Your task to perform on an android device: check android version Image 0: 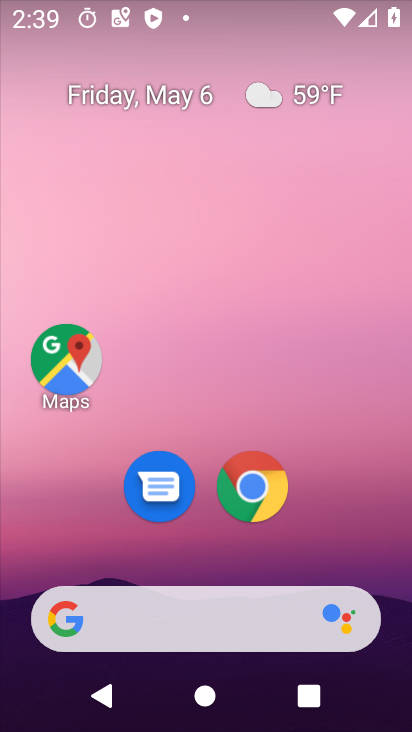
Step 0: drag from (319, 533) to (224, 145)
Your task to perform on an android device: check android version Image 1: 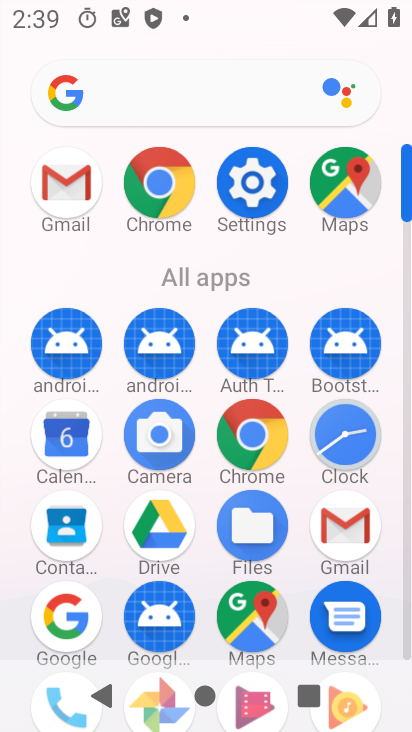
Step 1: click (247, 185)
Your task to perform on an android device: check android version Image 2: 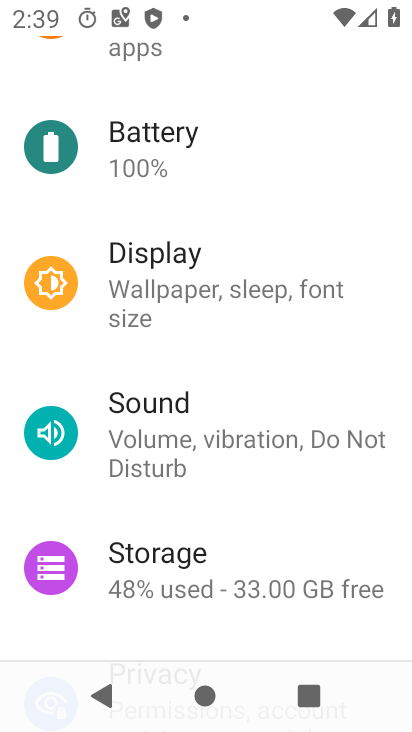
Step 2: drag from (235, 497) to (137, 23)
Your task to perform on an android device: check android version Image 3: 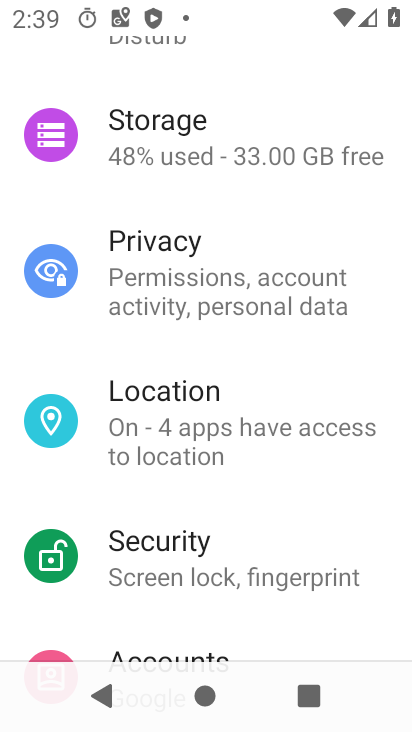
Step 3: drag from (221, 497) to (171, 114)
Your task to perform on an android device: check android version Image 4: 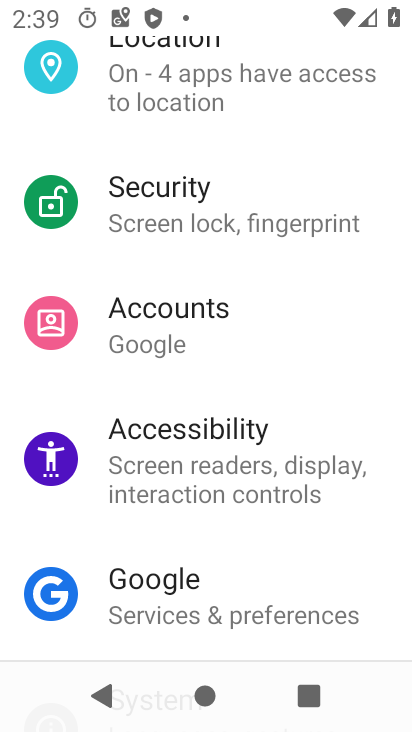
Step 4: drag from (201, 523) to (138, 81)
Your task to perform on an android device: check android version Image 5: 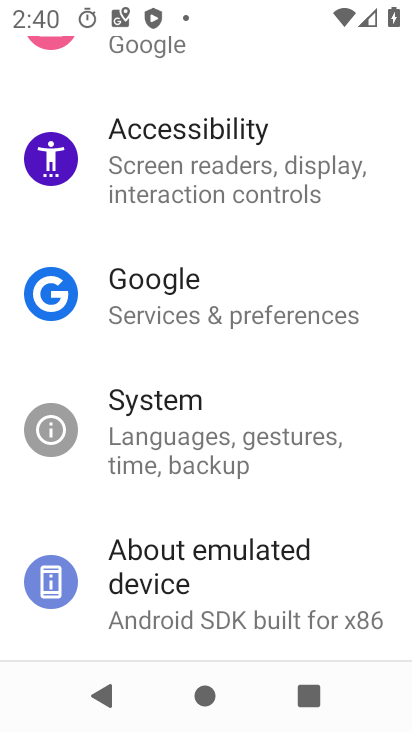
Step 5: drag from (236, 530) to (147, 119)
Your task to perform on an android device: check android version Image 6: 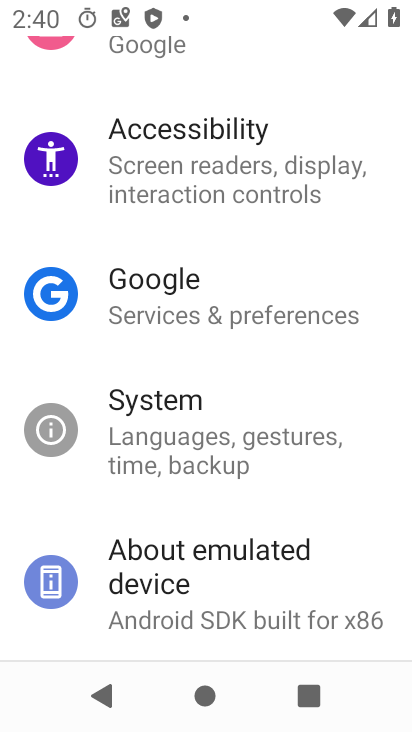
Step 6: click (190, 574)
Your task to perform on an android device: check android version Image 7: 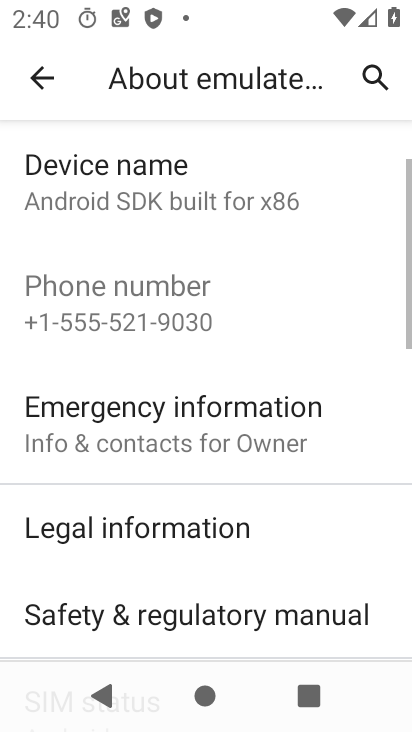
Step 7: drag from (260, 493) to (155, 57)
Your task to perform on an android device: check android version Image 8: 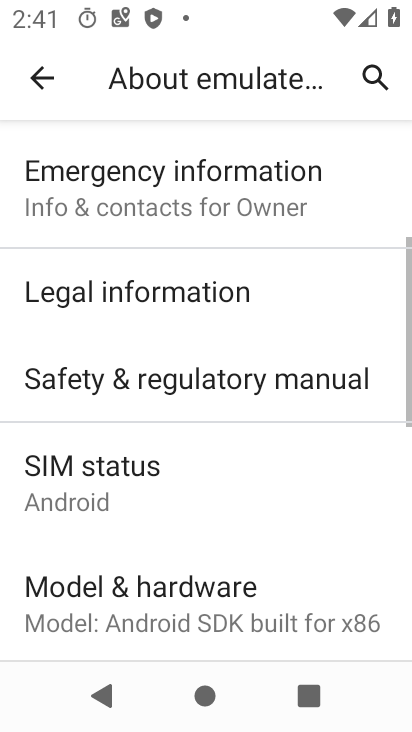
Step 8: drag from (197, 484) to (115, 107)
Your task to perform on an android device: check android version Image 9: 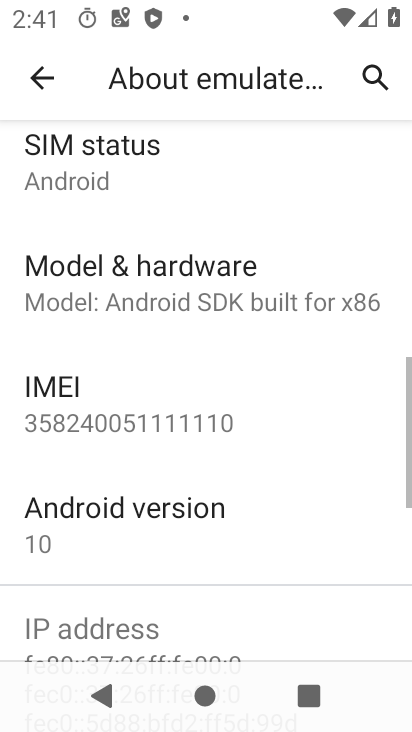
Step 9: drag from (205, 505) to (166, 233)
Your task to perform on an android device: check android version Image 10: 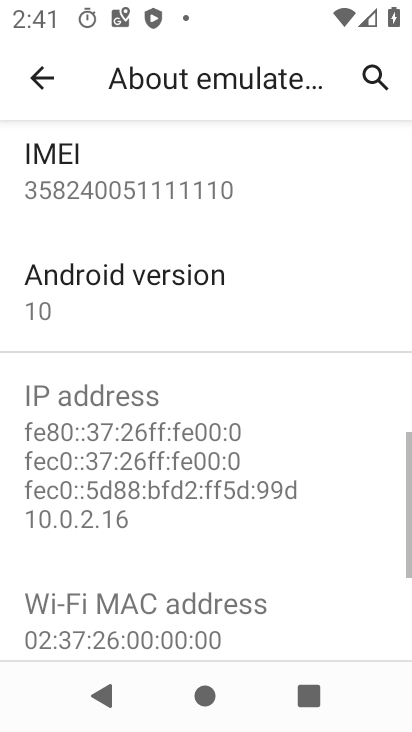
Step 10: click (137, 276)
Your task to perform on an android device: check android version Image 11: 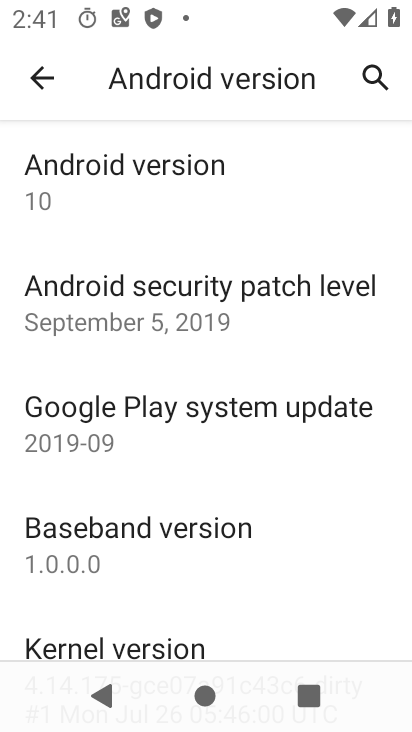
Step 11: task complete